Your task to perform on an android device: Go to eBay Image 0: 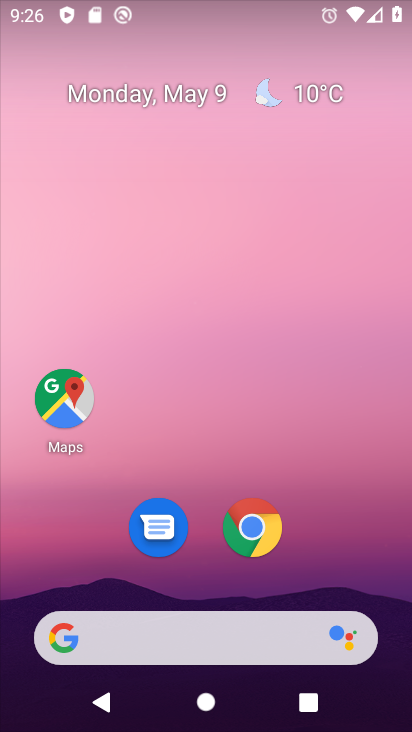
Step 0: click (255, 523)
Your task to perform on an android device: Go to eBay Image 1: 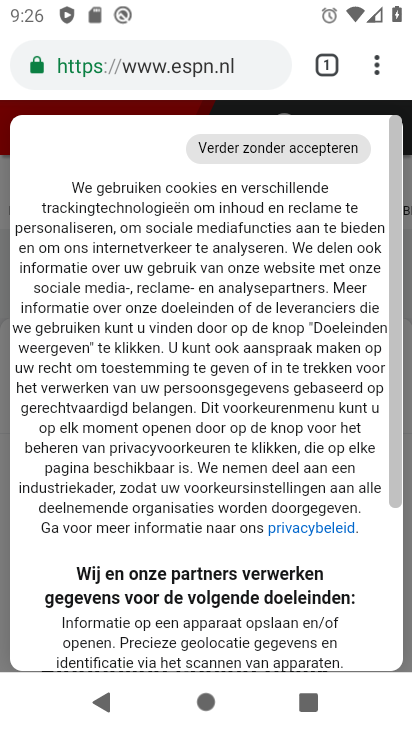
Step 1: click (151, 65)
Your task to perform on an android device: Go to eBay Image 2: 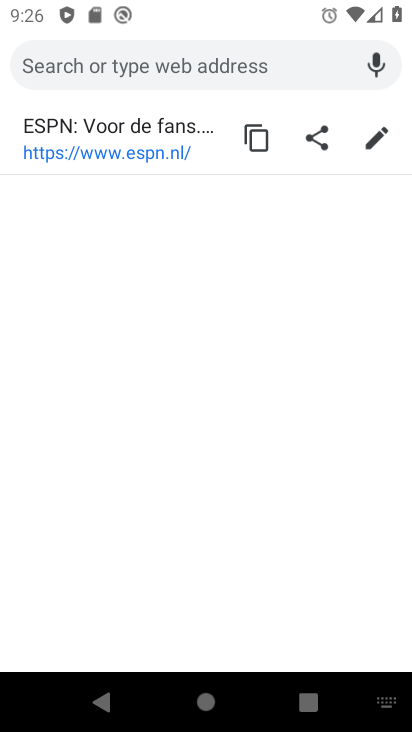
Step 2: type "ebay"
Your task to perform on an android device: Go to eBay Image 3: 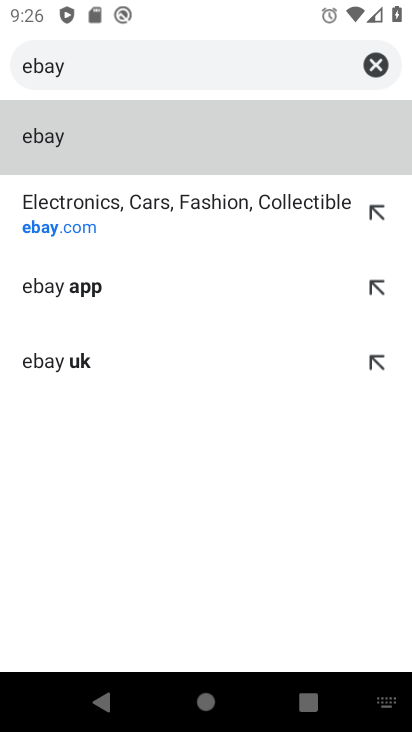
Step 3: click (68, 205)
Your task to perform on an android device: Go to eBay Image 4: 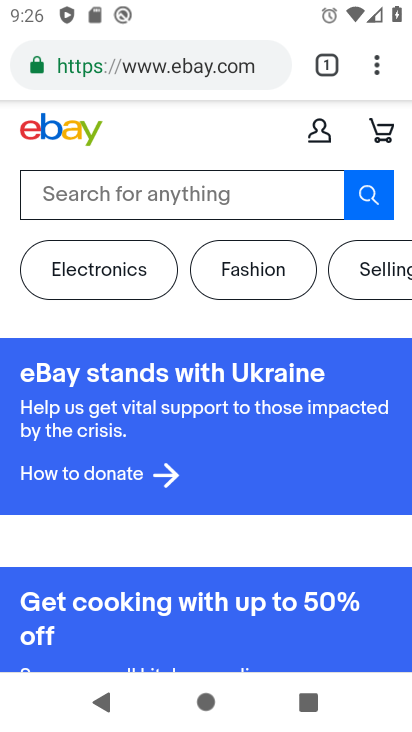
Step 4: task complete